Your task to perform on an android device: change the clock display to analog Image 0: 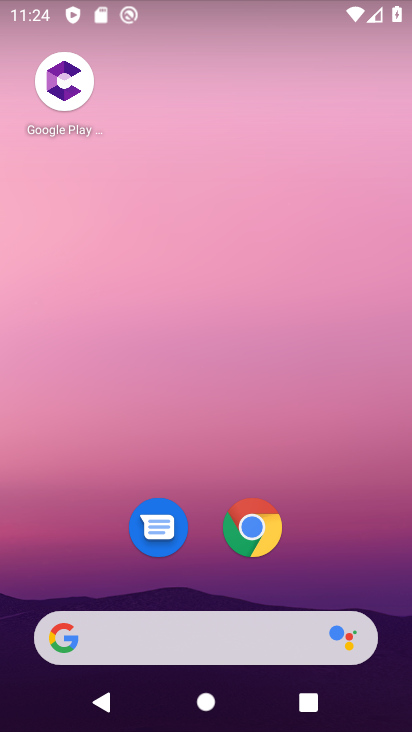
Step 0: drag from (200, 589) to (216, 1)
Your task to perform on an android device: change the clock display to analog Image 1: 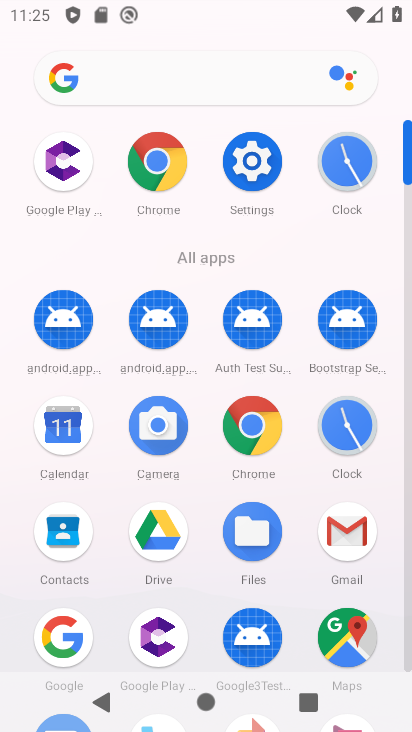
Step 1: click (350, 441)
Your task to perform on an android device: change the clock display to analog Image 2: 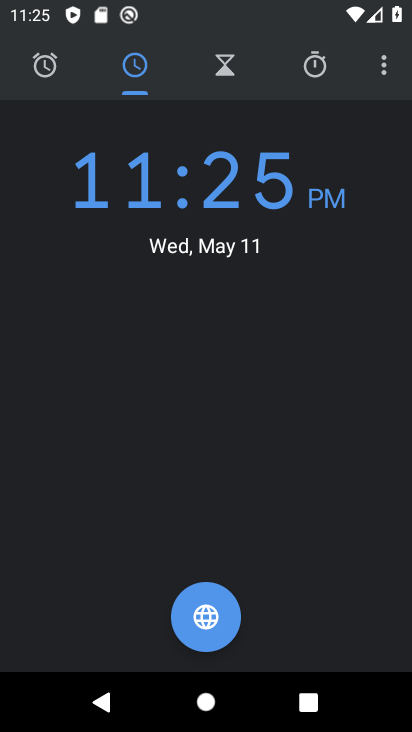
Step 2: click (380, 81)
Your task to perform on an android device: change the clock display to analog Image 3: 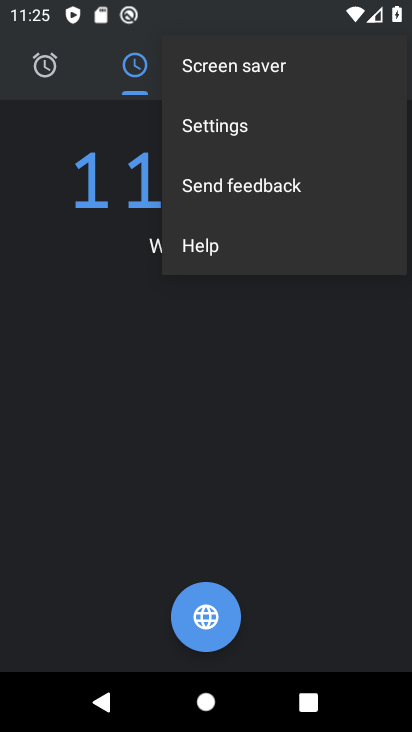
Step 3: click (215, 138)
Your task to perform on an android device: change the clock display to analog Image 4: 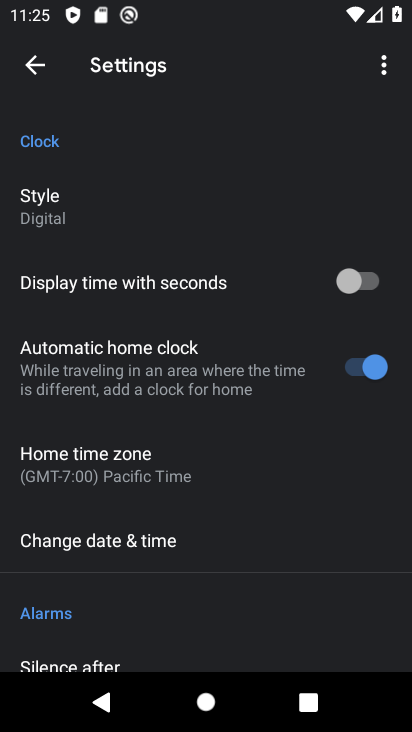
Step 4: click (66, 208)
Your task to perform on an android device: change the clock display to analog Image 5: 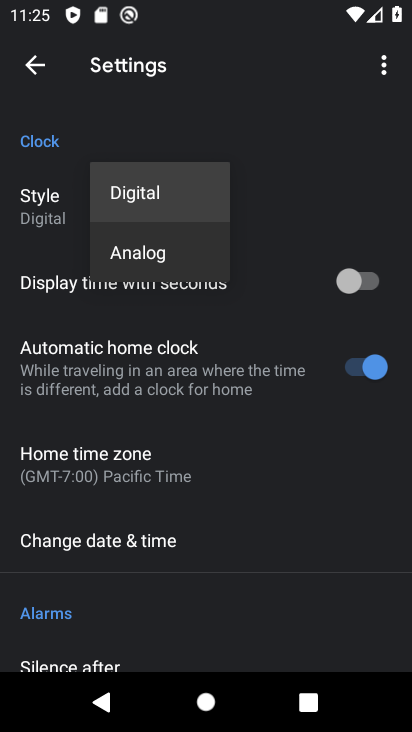
Step 5: click (111, 264)
Your task to perform on an android device: change the clock display to analog Image 6: 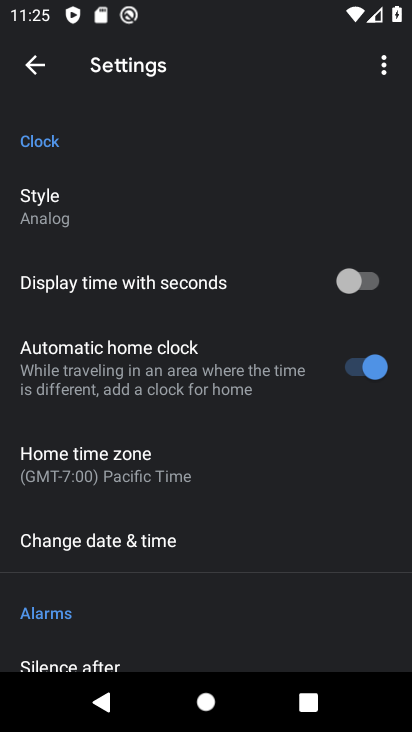
Step 6: task complete